Your task to perform on an android device: turn off airplane mode Image 0: 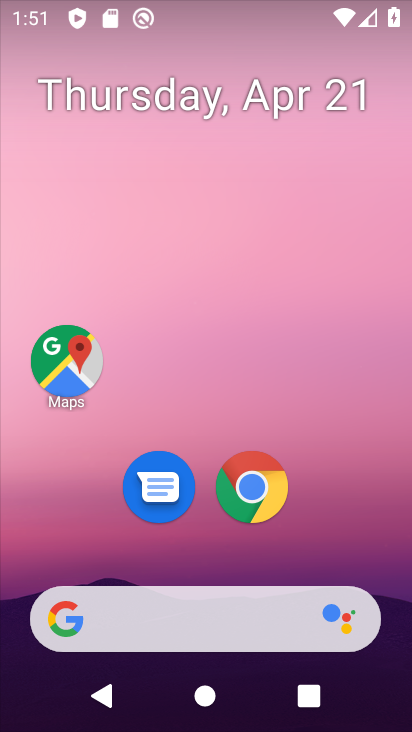
Step 0: click (264, 118)
Your task to perform on an android device: turn off airplane mode Image 1: 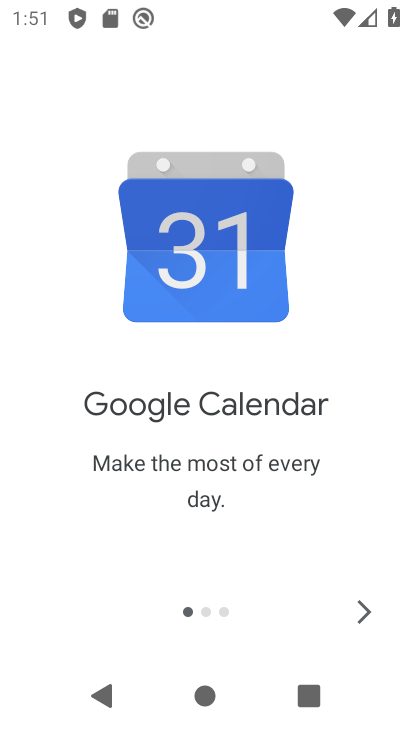
Step 1: click (360, 612)
Your task to perform on an android device: turn off airplane mode Image 2: 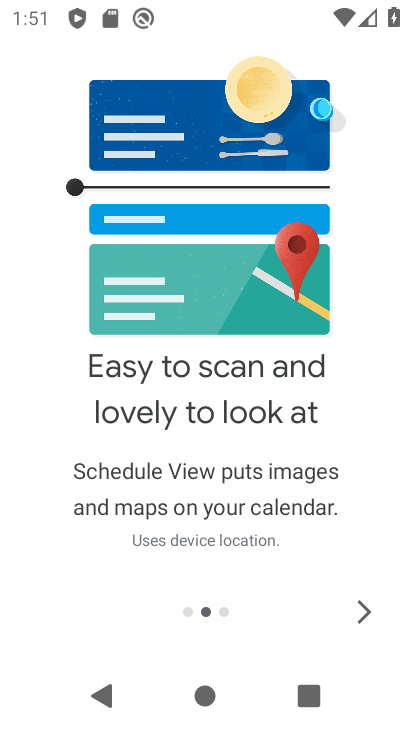
Step 2: click (360, 612)
Your task to perform on an android device: turn off airplane mode Image 3: 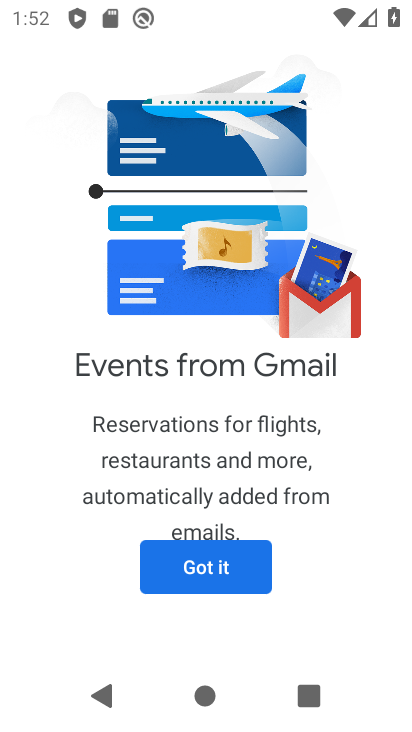
Step 3: click (260, 578)
Your task to perform on an android device: turn off airplane mode Image 4: 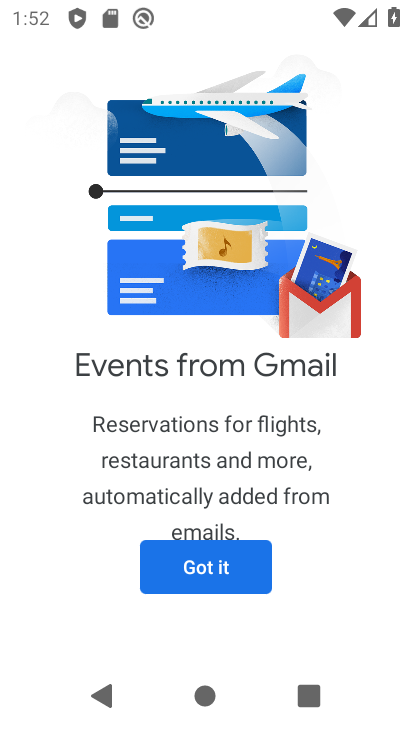
Step 4: click (244, 578)
Your task to perform on an android device: turn off airplane mode Image 5: 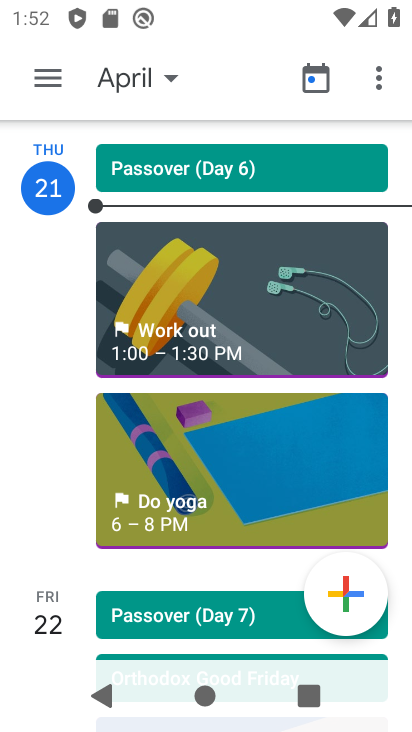
Step 5: drag from (222, 574) to (263, 207)
Your task to perform on an android device: turn off airplane mode Image 6: 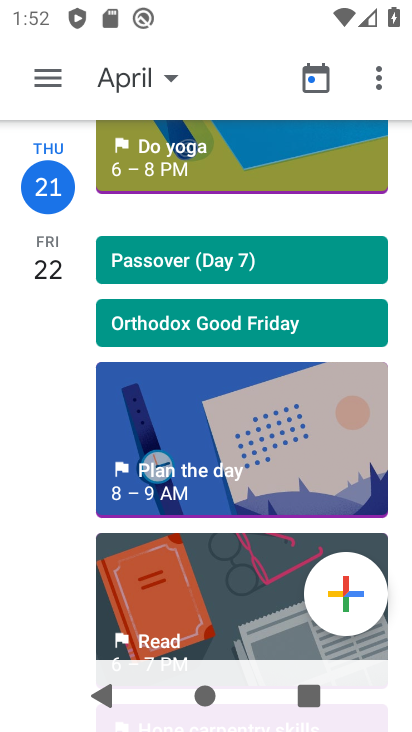
Step 6: drag from (174, 535) to (244, 210)
Your task to perform on an android device: turn off airplane mode Image 7: 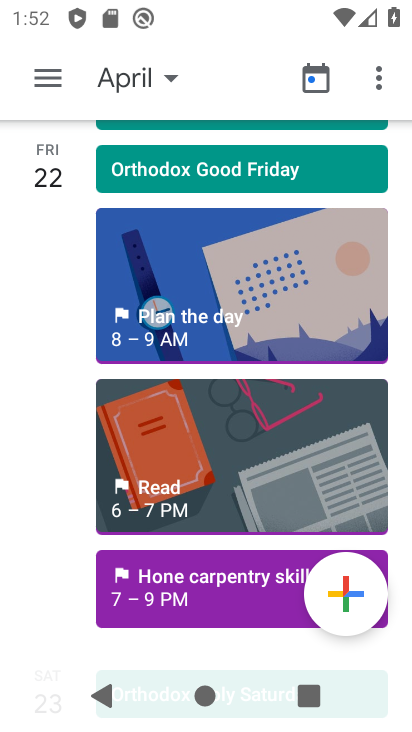
Step 7: press home button
Your task to perform on an android device: turn off airplane mode Image 8: 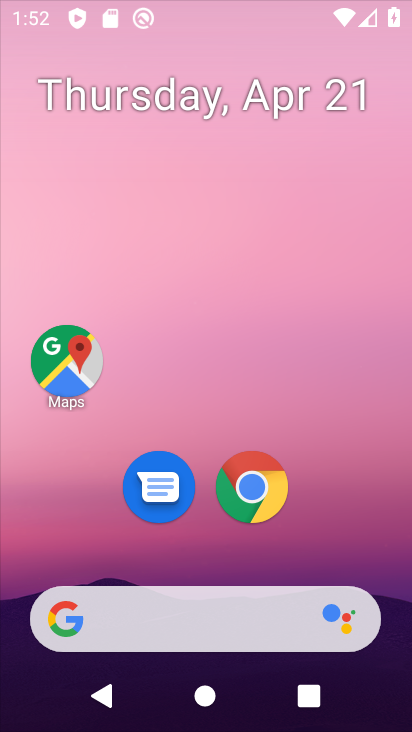
Step 8: drag from (122, 548) to (245, 57)
Your task to perform on an android device: turn off airplane mode Image 9: 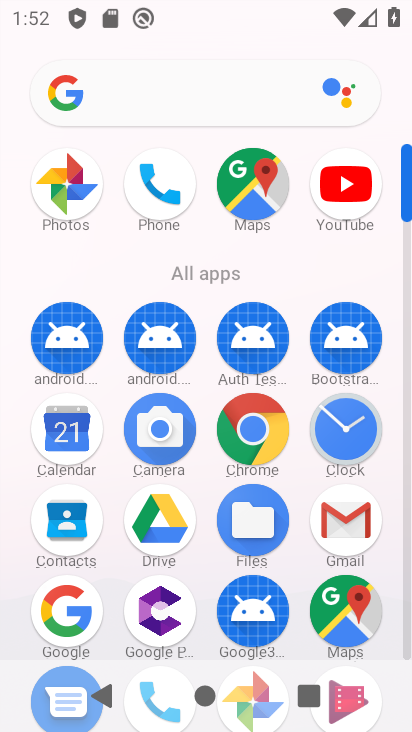
Step 9: drag from (209, 563) to (291, 3)
Your task to perform on an android device: turn off airplane mode Image 10: 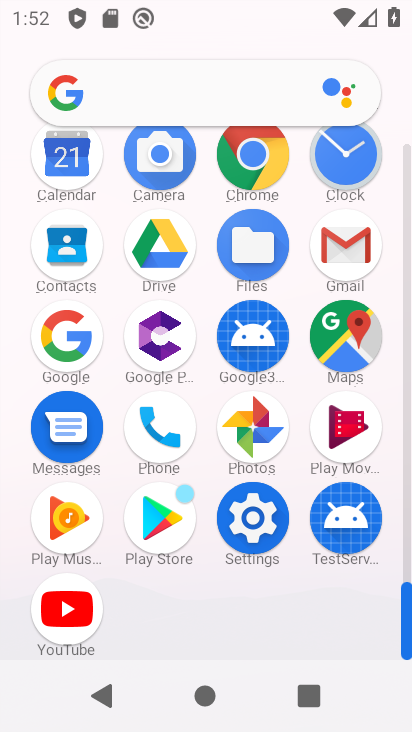
Step 10: click (254, 520)
Your task to perform on an android device: turn off airplane mode Image 11: 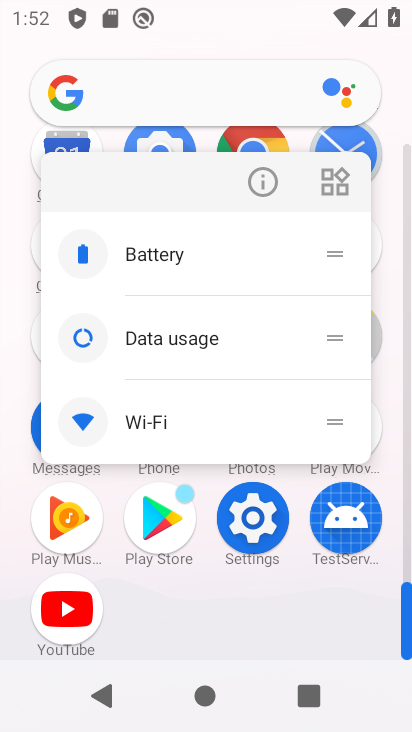
Step 11: click (252, 174)
Your task to perform on an android device: turn off airplane mode Image 12: 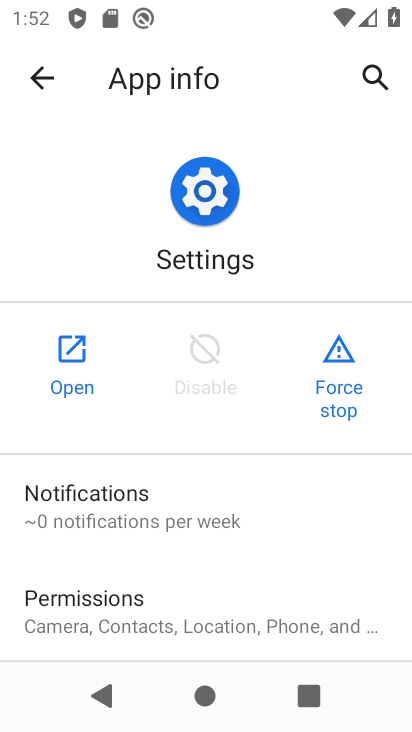
Step 12: click (92, 362)
Your task to perform on an android device: turn off airplane mode Image 13: 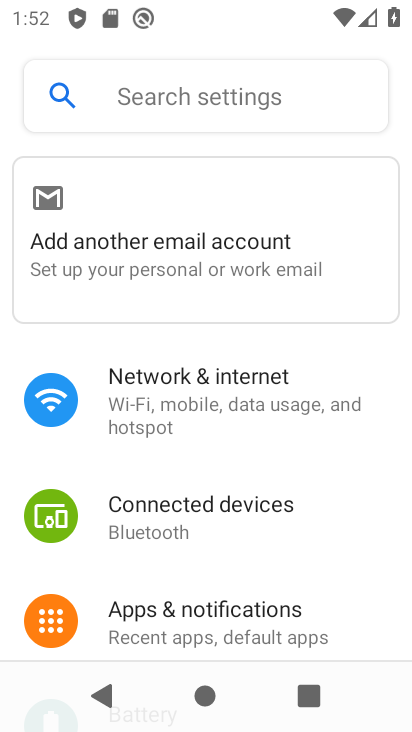
Step 13: click (202, 398)
Your task to perform on an android device: turn off airplane mode Image 14: 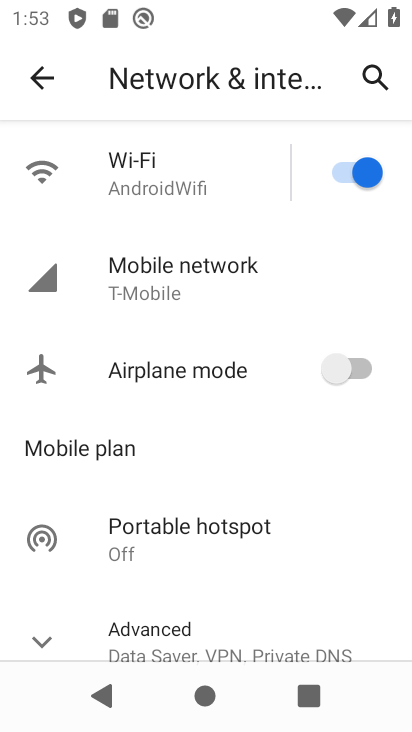
Step 14: task complete